Your task to perform on an android device: turn on the 24-hour format for clock Image 0: 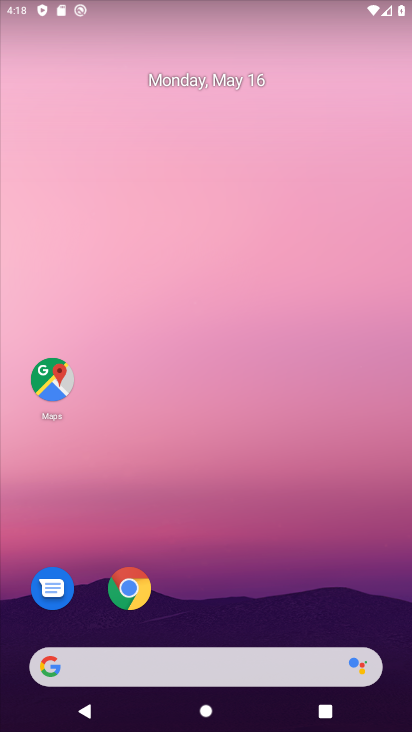
Step 0: drag from (250, 564) to (246, 28)
Your task to perform on an android device: turn on the 24-hour format for clock Image 1: 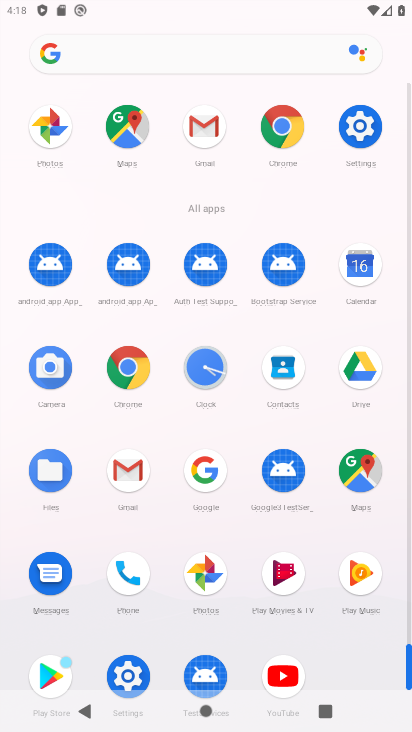
Step 1: drag from (17, 529) to (21, 185)
Your task to perform on an android device: turn on the 24-hour format for clock Image 2: 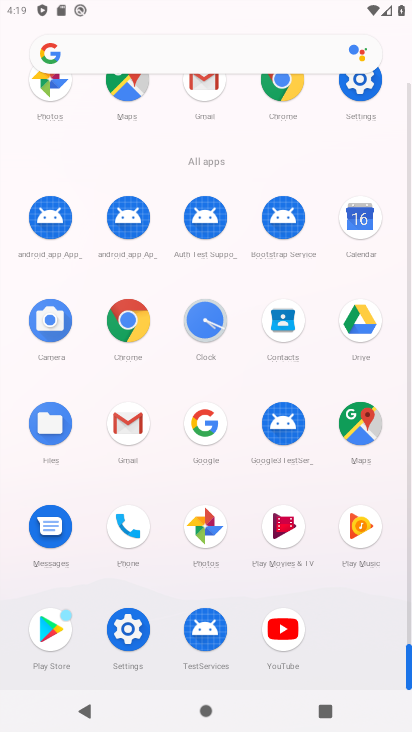
Step 2: drag from (13, 506) to (29, 293)
Your task to perform on an android device: turn on the 24-hour format for clock Image 3: 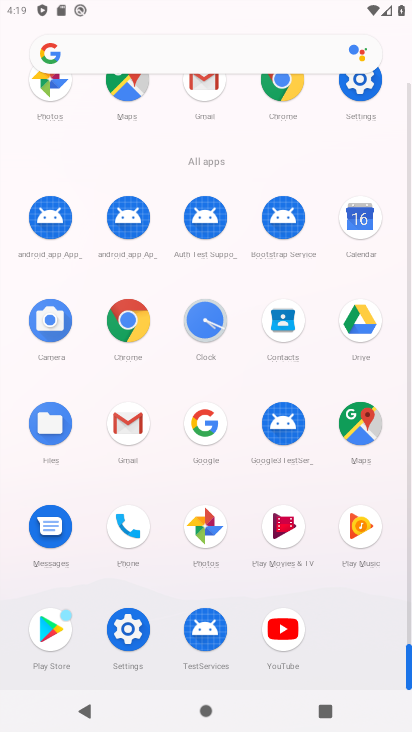
Step 3: click (202, 320)
Your task to perform on an android device: turn on the 24-hour format for clock Image 4: 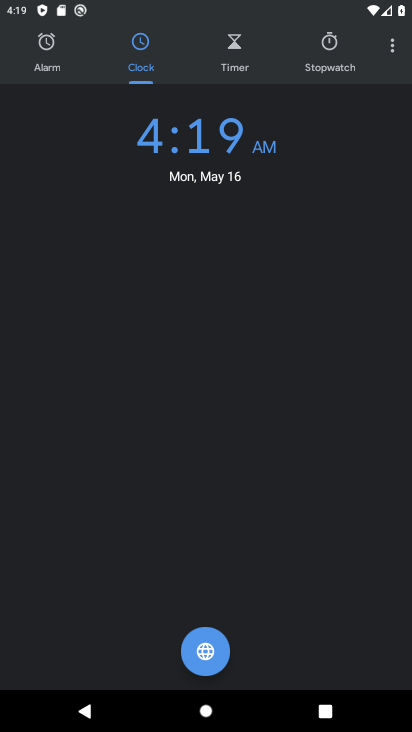
Step 4: drag from (392, 54) to (316, 94)
Your task to perform on an android device: turn on the 24-hour format for clock Image 5: 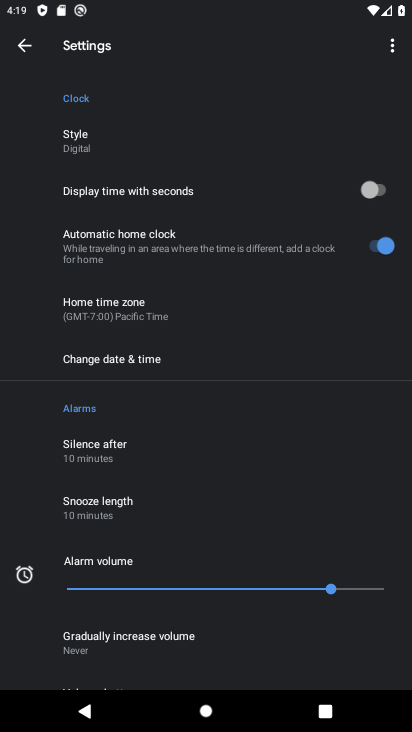
Step 5: click (169, 361)
Your task to perform on an android device: turn on the 24-hour format for clock Image 6: 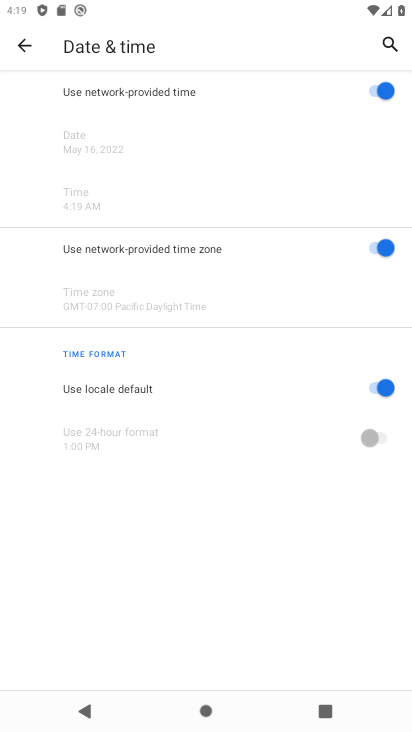
Step 6: click (381, 392)
Your task to perform on an android device: turn on the 24-hour format for clock Image 7: 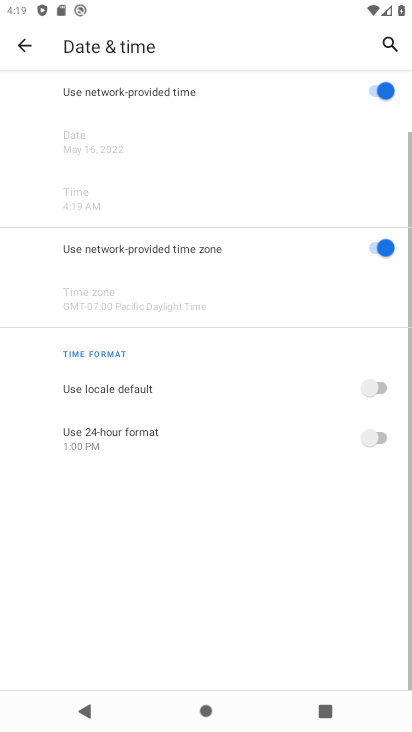
Step 7: click (371, 426)
Your task to perform on an android device: turn on the 24-hour format for clock Image 8: 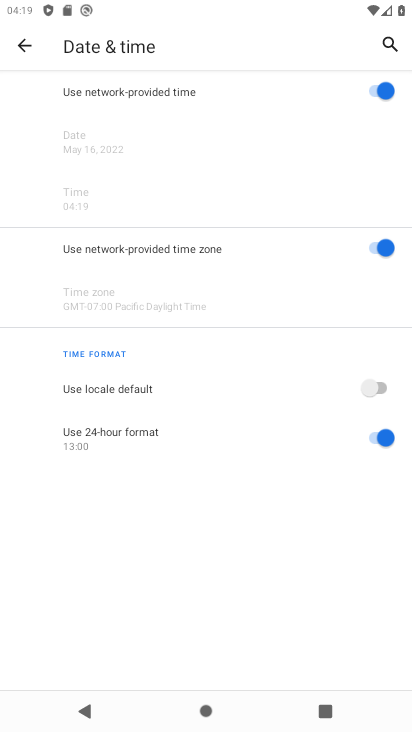
Step 8: task complete